Your task to perform on an android device: Open Yahoo.com Image 0: 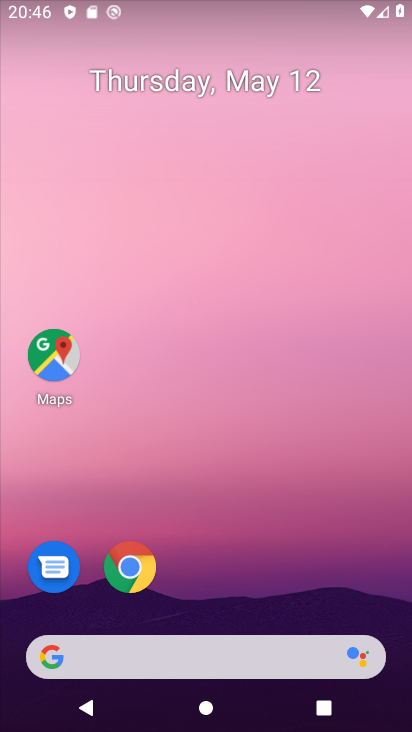
Step 0: click (126, 571)
Your task to perform on an android device: Open Yahoo.com Image 1: 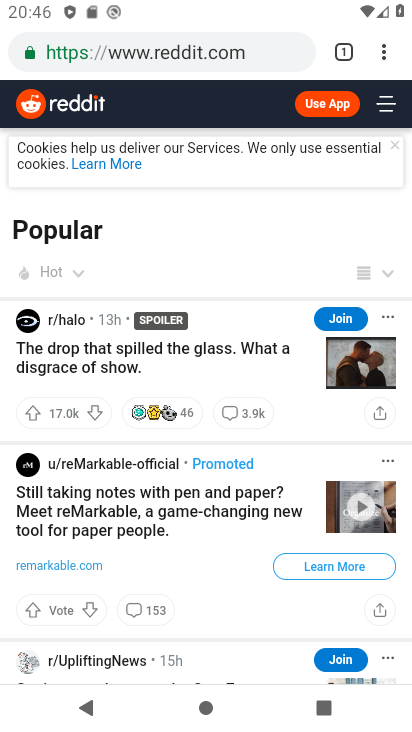
Step 1: drag from (390, 50) to (356, 103)
Your task to perform on an android device: Open Yahoo.com Image 2: 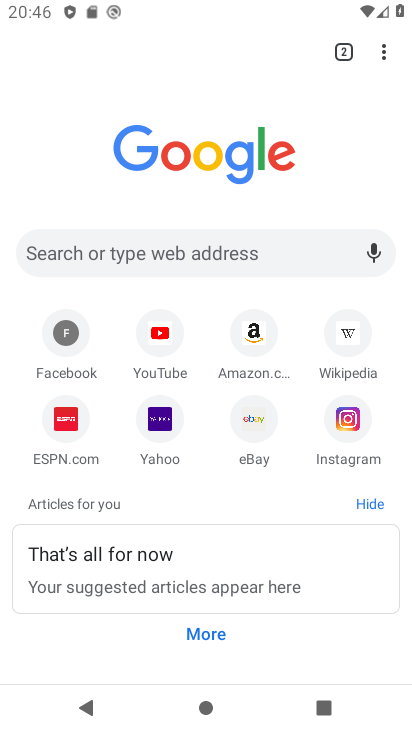
Step 2: click (154, 417)
Your task to perform on an android device: Open Yahoo.com Image 3: 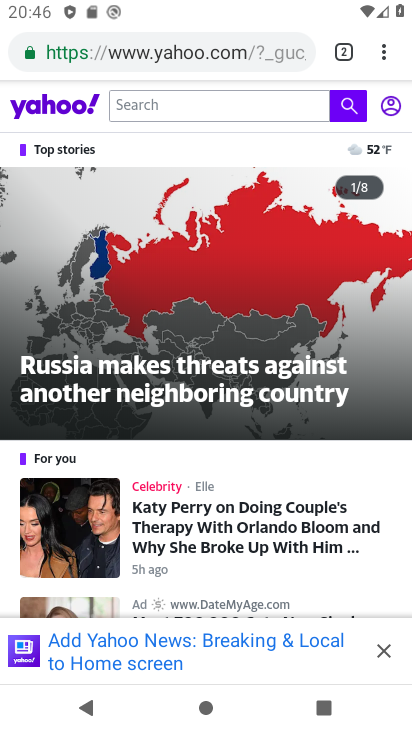
Step 3: task complete